Your task to perform on an android device: read, delete, or share a saved page in the chrome app Image 0: 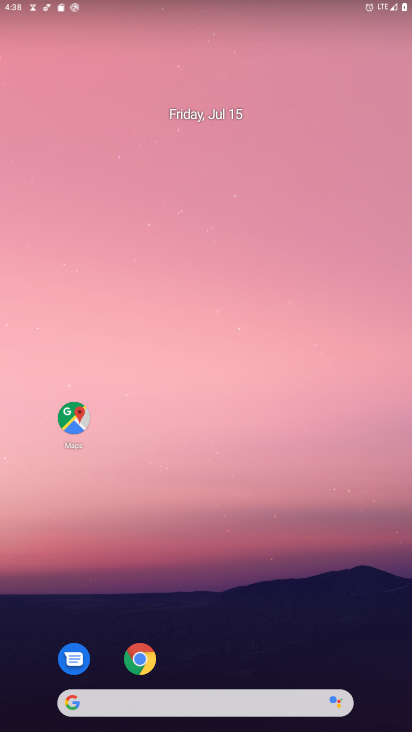
Step 0: drag from (260, 701) to (228, 155)
Your task to perform on an android device: read, delete, or share a saved page in the chrome app Image 1: 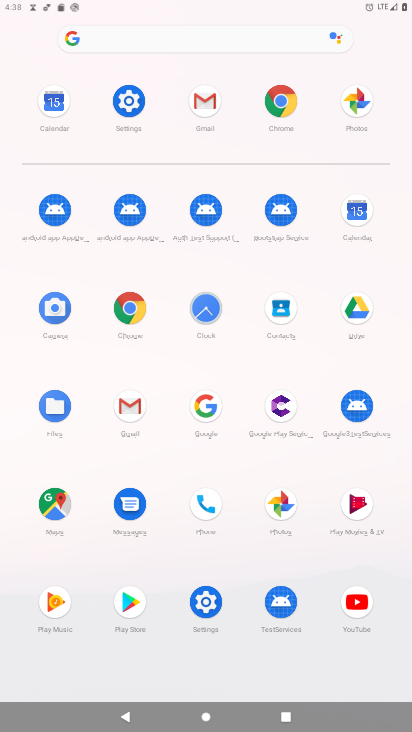
Step 1: click (134, 304)
Your task to perform on an android device: read, delete, or share a saved page in the chrome app Image 2: 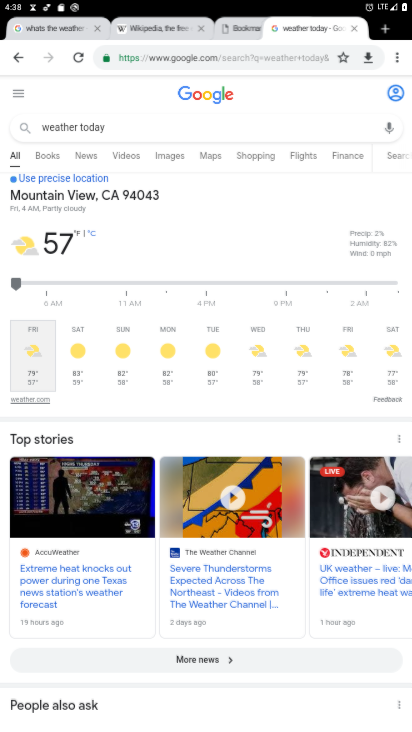
Step 2: click (392, 58)
Your task to perform on an android device: read, delete, or share a saved page in the chrome app Image 3: 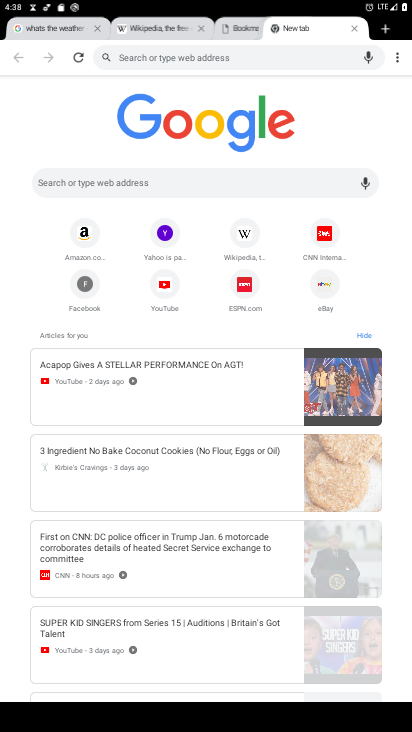
Step 3: click (401, 58)
Your task to perform on an android device: read, delete, or share a saved page in the chrome app Image 4: 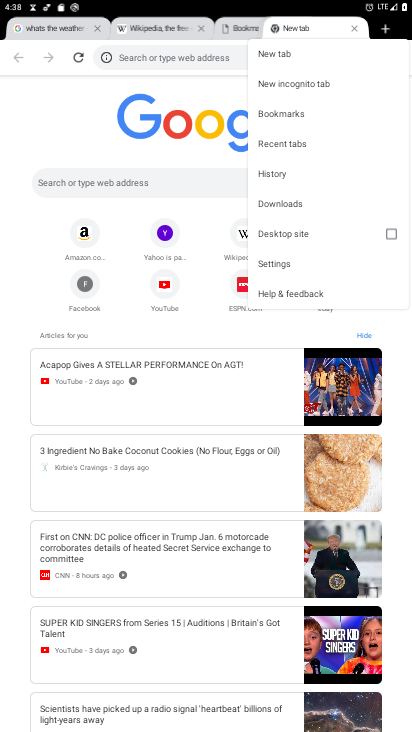
Step 4: click (268, 211)
Your task to perform on an android device: read, delete, or share a saved page in the chrome app Image 5: 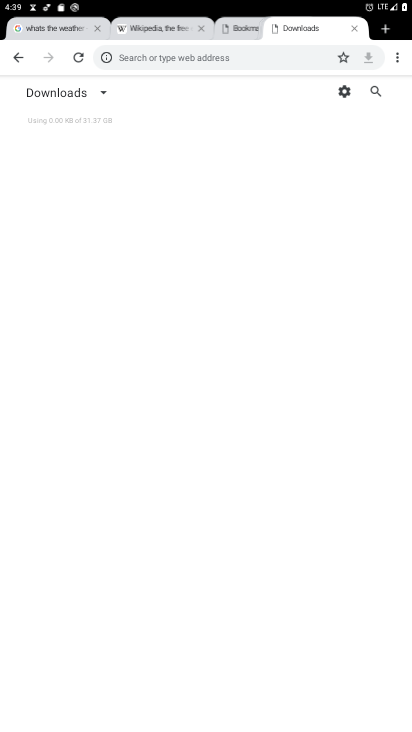
Step 5: task complete